Your task to perform on an android device: turn off airplane mode Image 0: 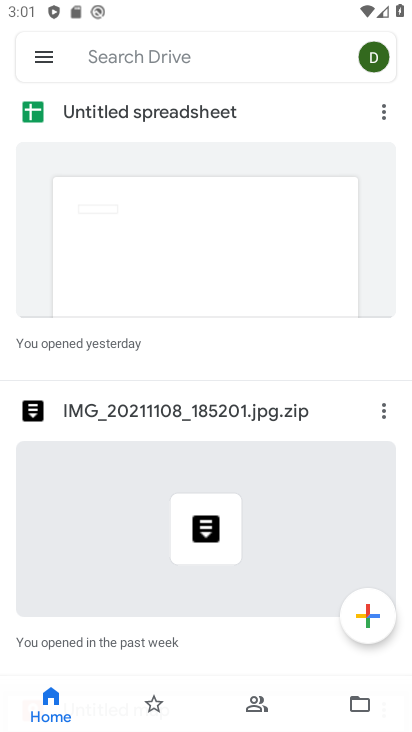
Step 0: press home button
Your task to perform on an android device: turn off airplane mode Image 1: 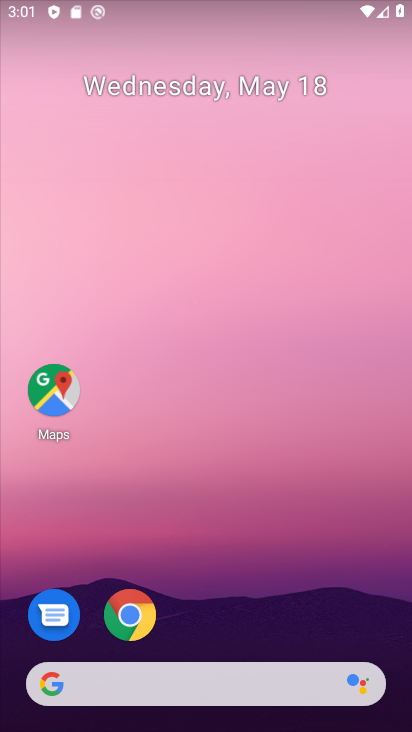
Step 1: drag from (281, 616) to (382, 167)
Your task to perform on an android device: turn off airplane mode Image 2: 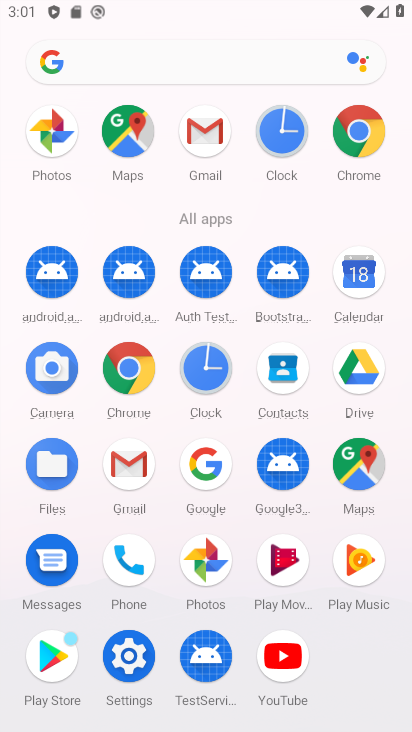
Step 2: click (131, 663)
Your task to perform on an android device: turn off airplane mode Image 3: 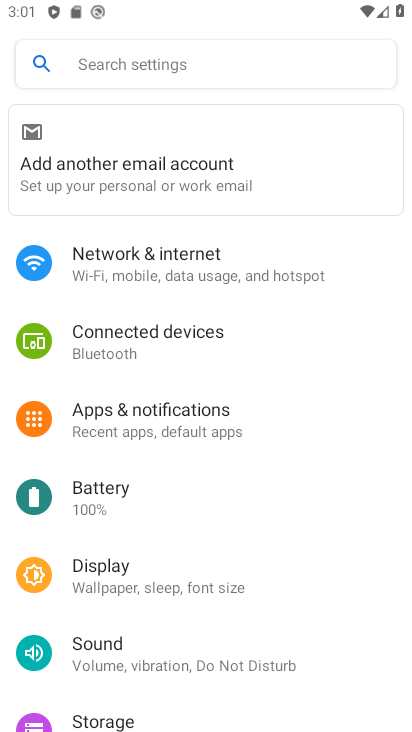
Step 3: click (268, 289)
Your task to perform on an android device: turn off airplane mode Image 4: 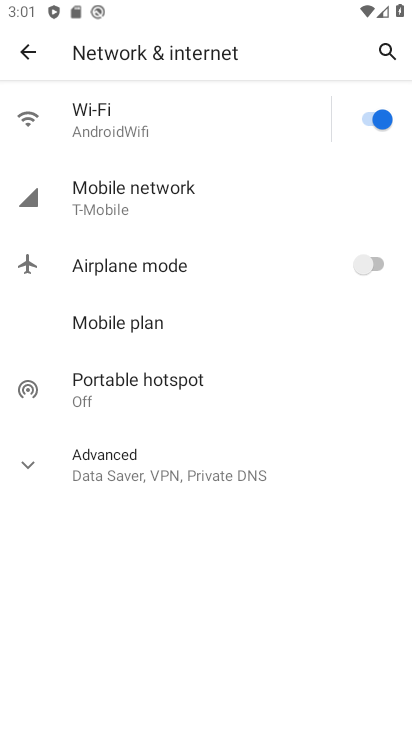
Step 4: task complete